Your task to perform on an android device: see sites visited before in the chrome app Image 0: 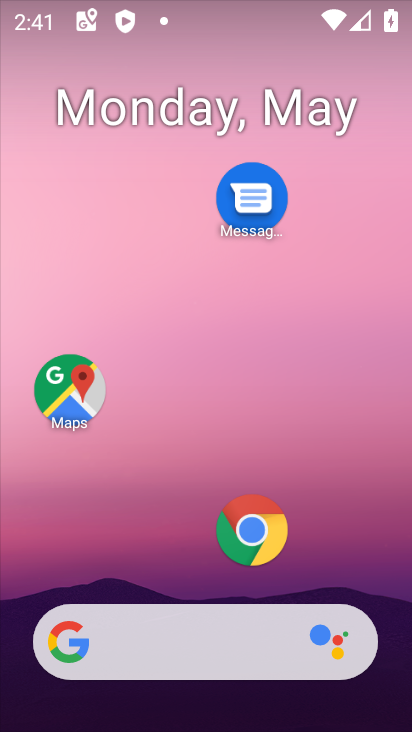
Step 0: click (254, 517)
Your task to perform on an android device: see sites visited before in the chrome app Image 1: 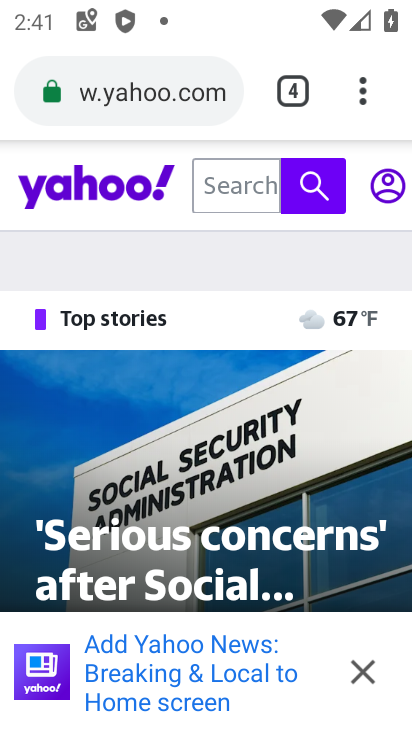
Step 1: task complete